Your task to perform on an android device: Search for Mexican restaurants on Maps Image 0: 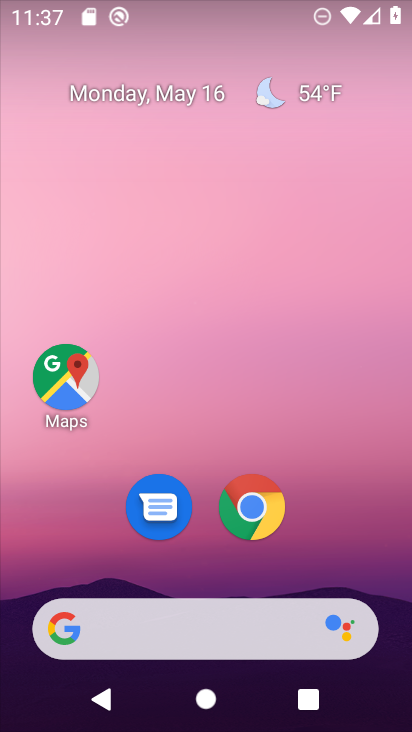
Step 0: click (48, 372)
Your task to perform on an android device: Search for Mexican restaurants on Maps Image 1: 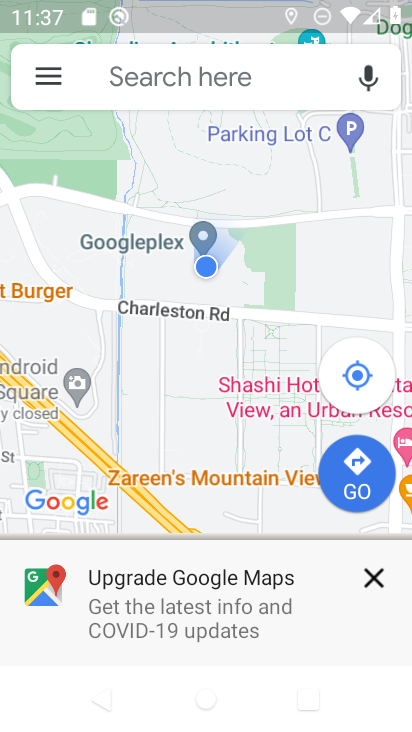
Step 1: click (165, 67)
Your task to perform on an android device: Search for Mexican restaurants on Maps Image 2: 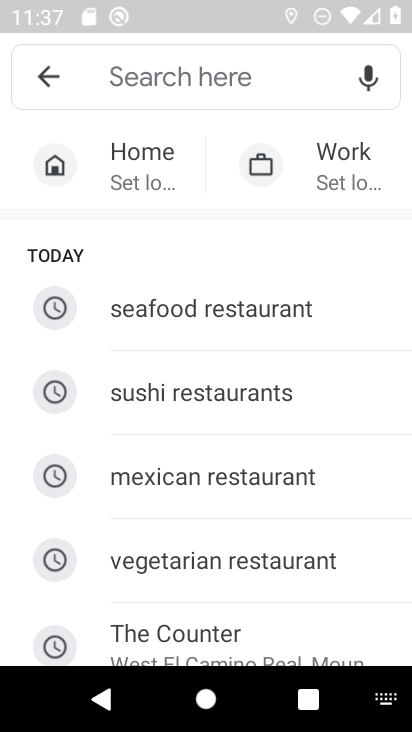
Step 2: click (232, 485)
Your task to perform on an android device: Search for Mexican restaurants on Maps Image 3: 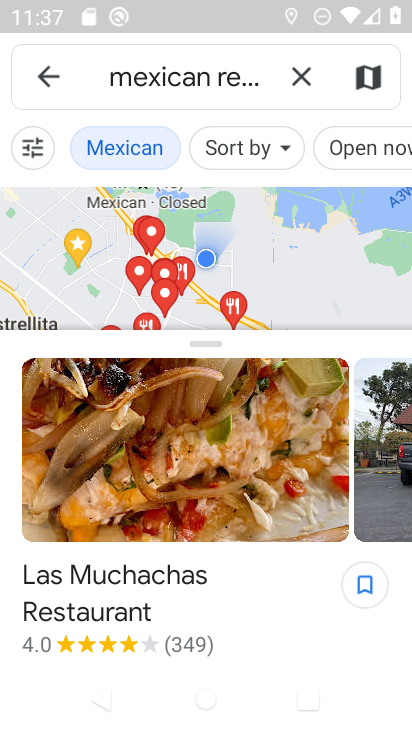
Step 3: task complete